Your task to perform on an android device: Go to Yahoo.com Image 0: 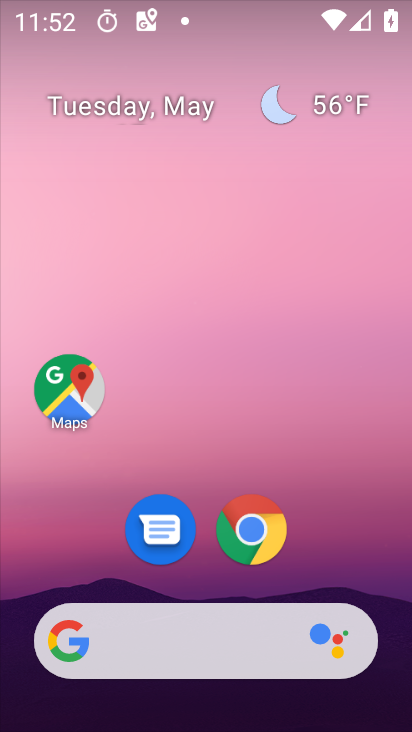
Step 0: click (171, 641)
Your task to perform on an android device: Go to Yahoo.com Image 1: 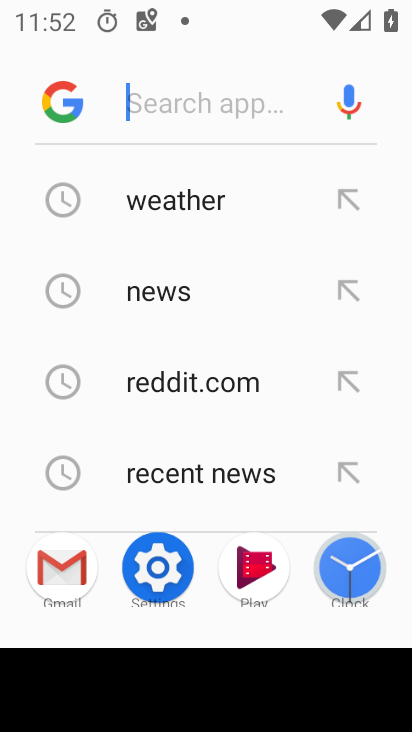
Step 1: click (235, 98)
Your task to perform on an android device: Go to Yahoo.com Image 2: 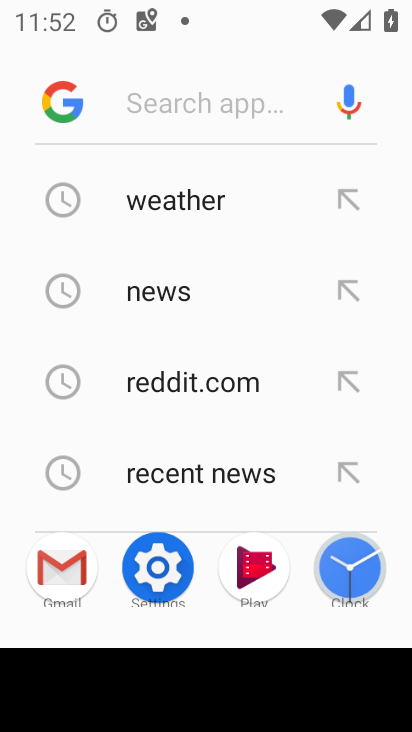
Step 2: type "yahoo"
Your task to perform on an android device: Go to Yahoo.com Image 3: 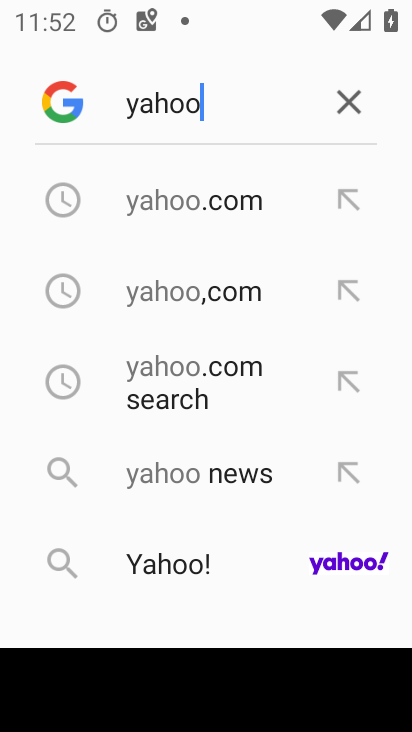
Step 3: click (329, 561)
Your task to perform on an android device: Go to Yahoo.com Image 4: 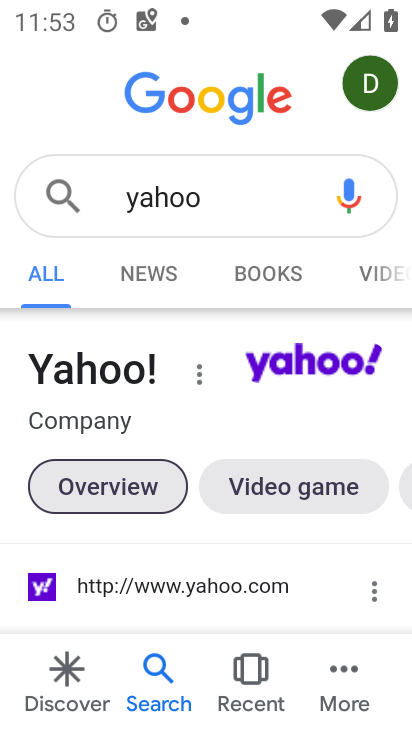
Step 4: task complete